Your task to perform on an android device: toggle wifi Image 0: 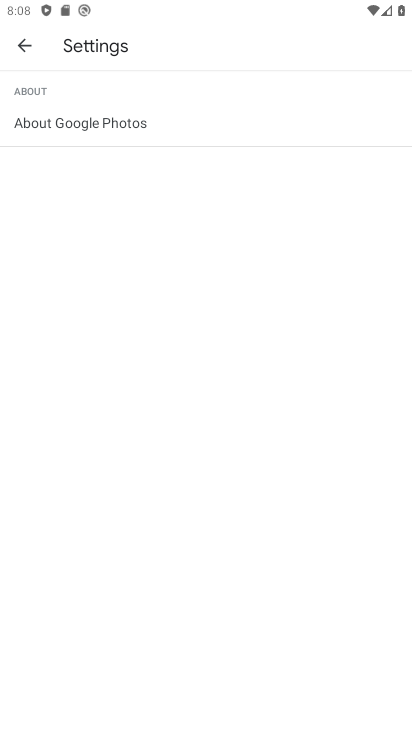
Step 0: press home button
Your task to perform on an android device: toggle wifi Image 1: 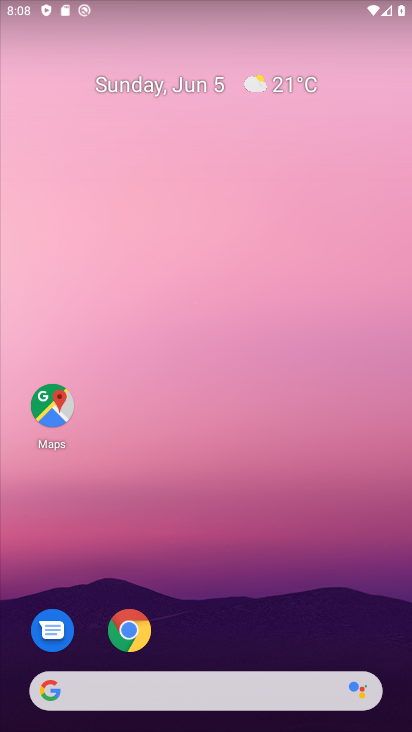
Step 1: drag from (208, 609) to (288, 120)
Your task to perform on an android device: toggle wifi Image 2: 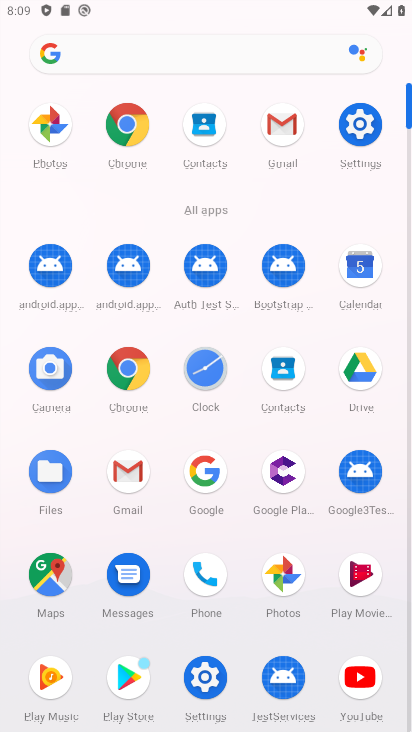
Step 2: click (208, 681)
Your task to perform on an android device: toggle wifi Image 3: 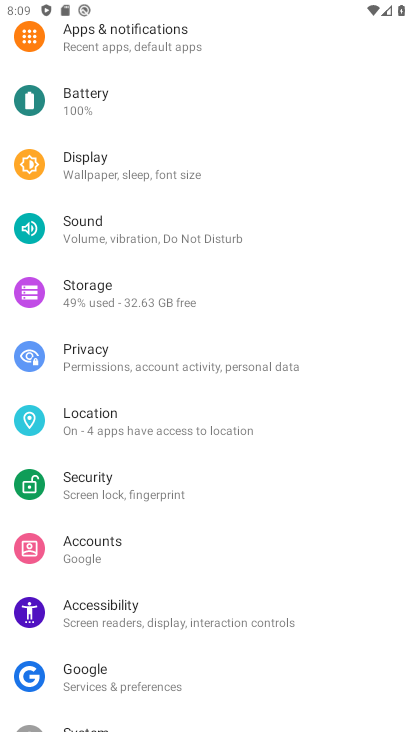
Step 3: drag from (138, 139) to (168, 608)
Your task to perform on an android device: toggle wifi Image 4: 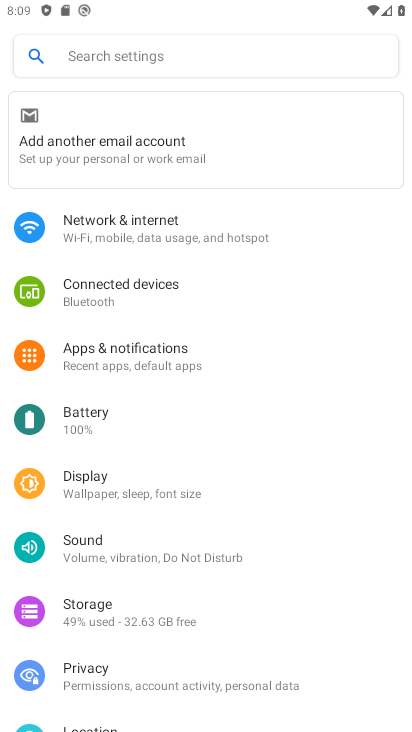
Step 4: click (165, 228)
Your task to perform on an android device: toggle wifi Image 5: 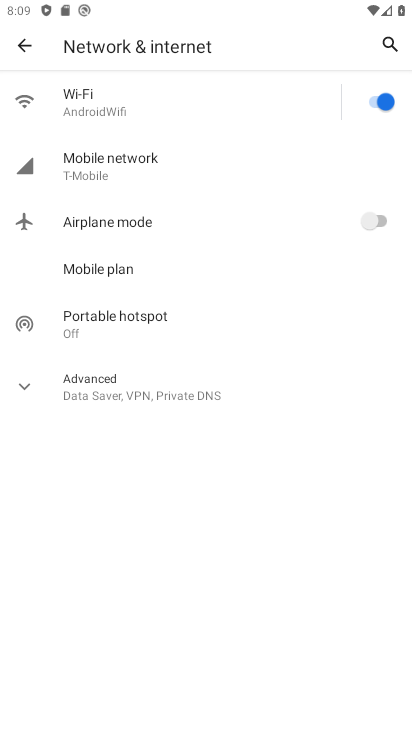
Step 5: click (375, 104)
Your task to perform on an android device: toggle wifi Image 6: 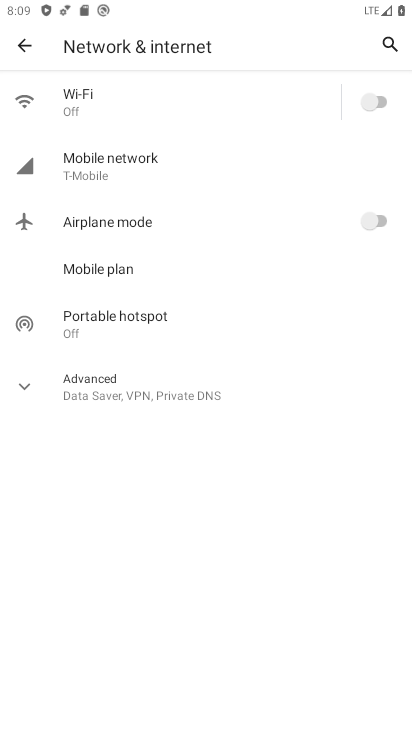
Step 6: click (375, 104)
Your task to perform on an android device: toggle wifi Image 7: 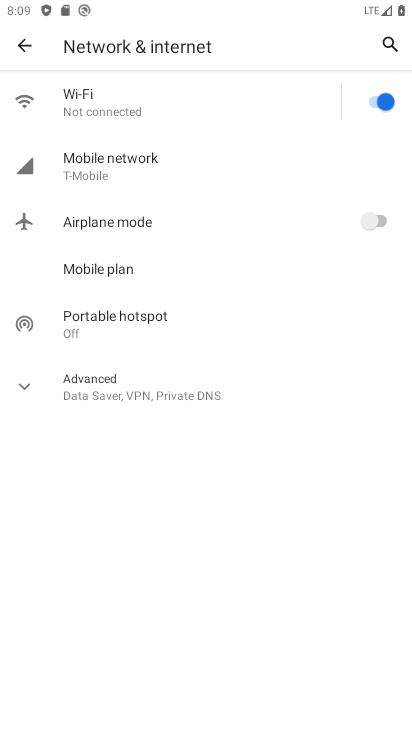
Step 7: task complete